Your task to perform on an android device: change notification settings in the gmail app Image 0: 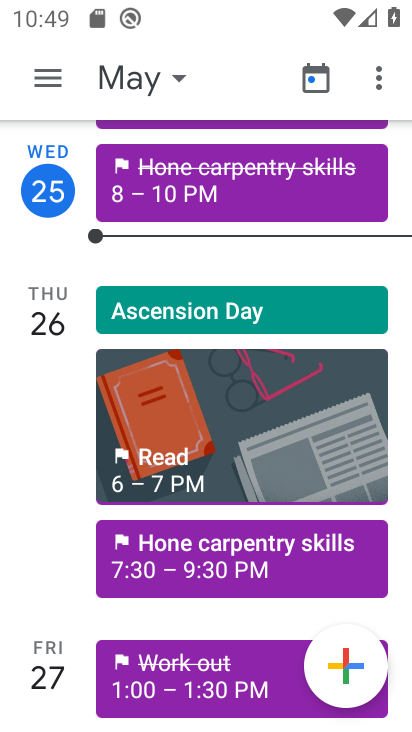
Step 0: press home button
Your task to perform on an android device: change notification settings in the gmail app Image 1: 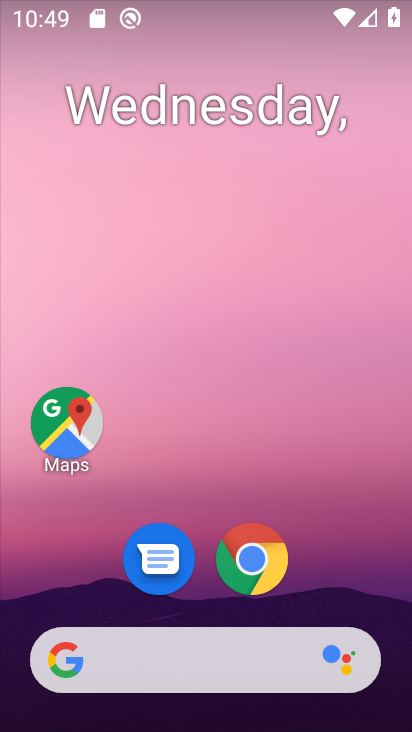
Step 1: drag from (274, 691) to (297, 121)
Your task to perform on an android device: change notification settings in the gmail app Image 2: 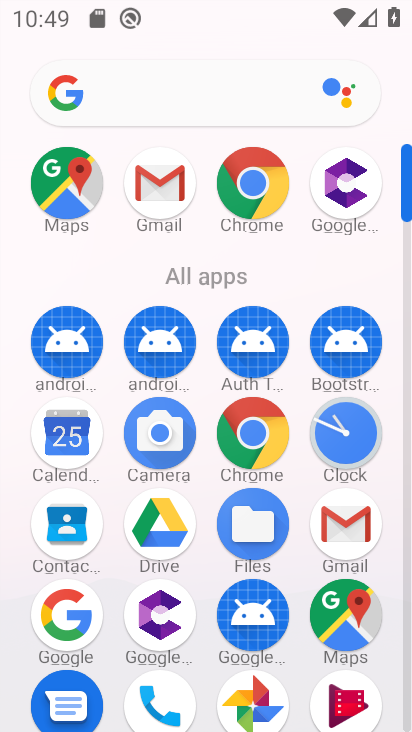
Step 2: click (167, 176)
Your task to perform on an android device: change notification settings in the gmail app Image 3: 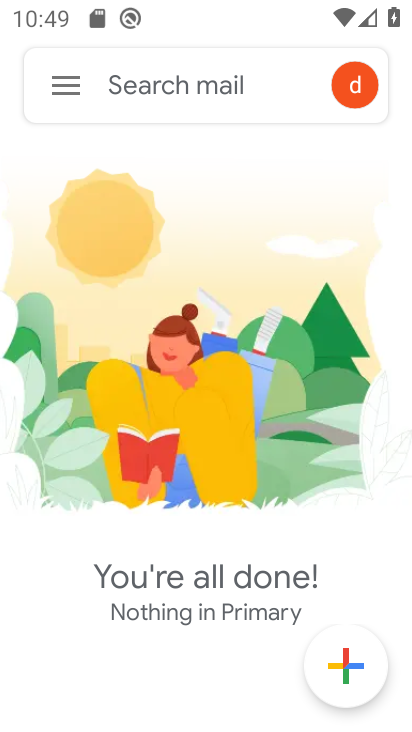
Step 3: click (72, 92)
Your task to perform on an android device: change notification settings in the gmail app Image 4: 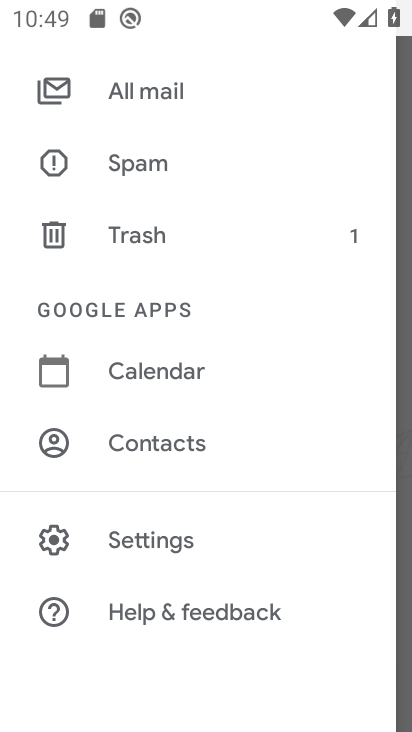
Step 4: click (172, 558)
Your task to perform on an android device: change notification settings in the gmail app Image 5: 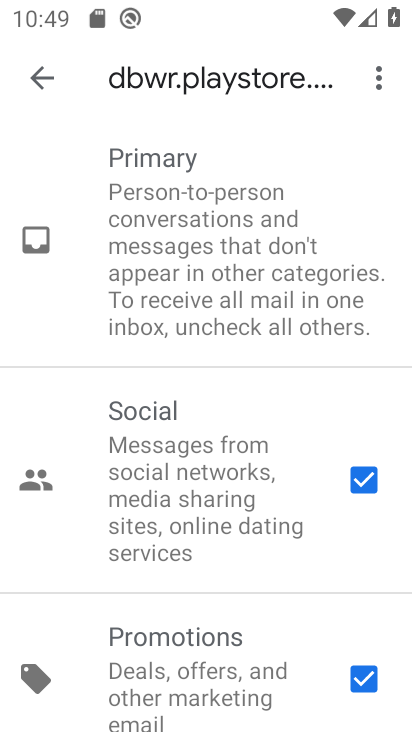
Step 5: click (39, 71)
Your task to perform on an android device: change notification settings in the gmail app Image 6: 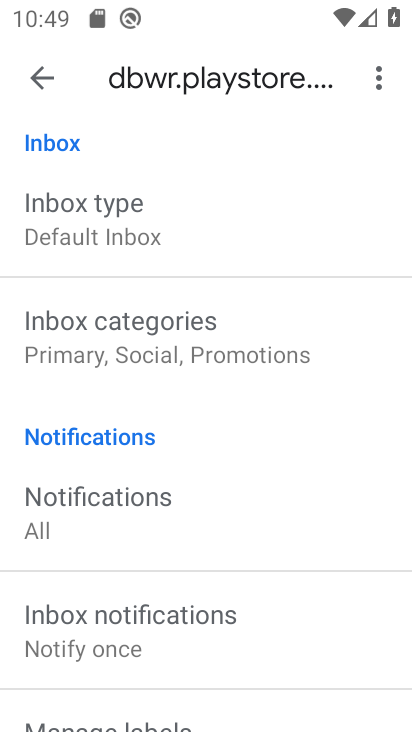
Step 6: click (125, 500)
Your task to perform on an android device: change notification settings in the gmail app Image 7: 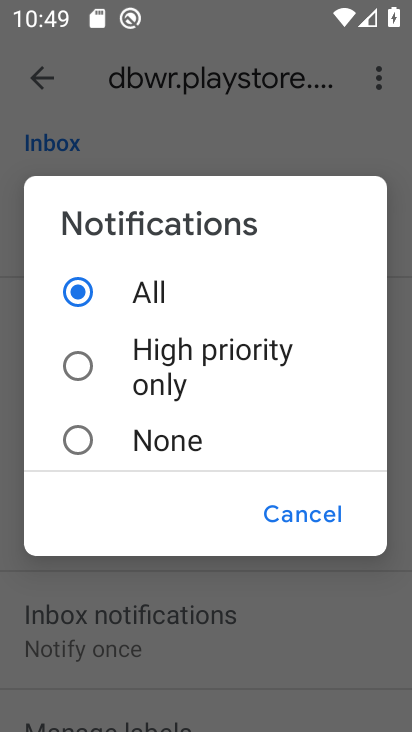
Step 7: click (202, 339)
Your task to perform on an android device: change notification settings in the gmail app Image 8: 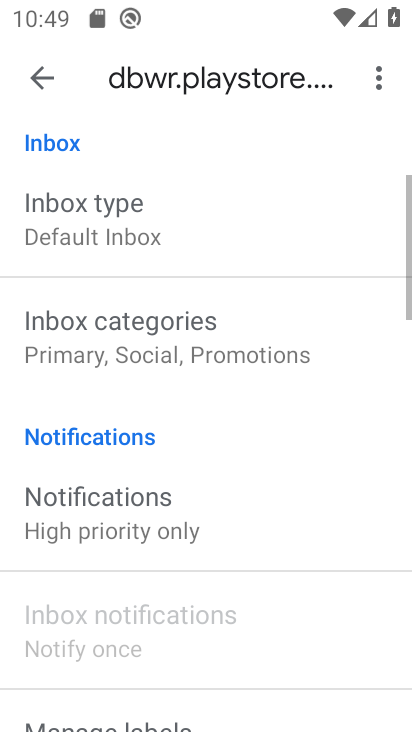
Step 8: task complete